Your task to perform on an android device: Open sound settings Image 0: 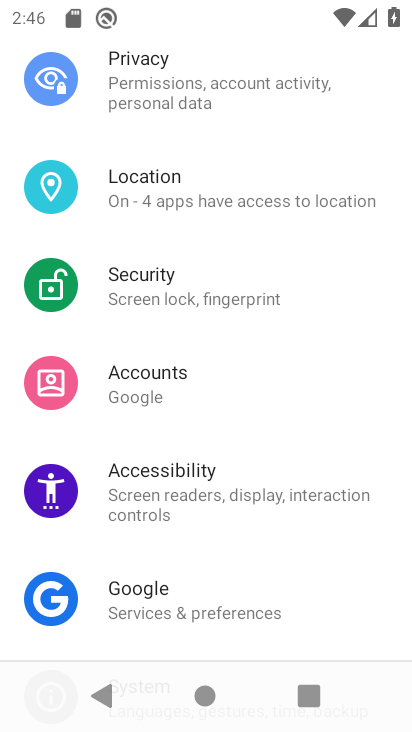
Step 0: drag from (266, 149) to (293, 651)
Your task to perform on an android device: Open sound settings Image 1: 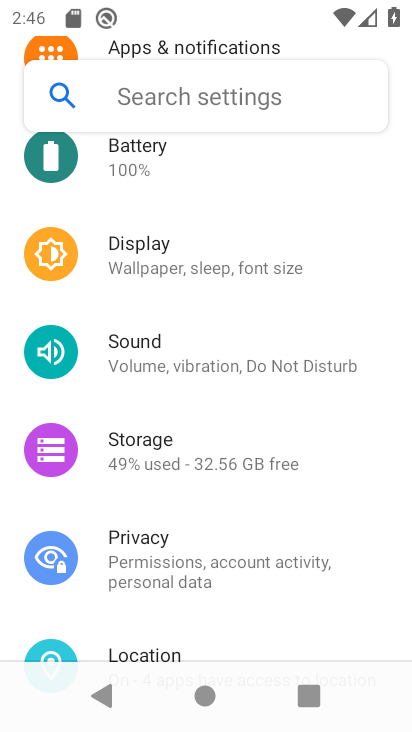
Step 1: click (205, 359)
Your task to perform on an android device: Open sound settings Image 2: 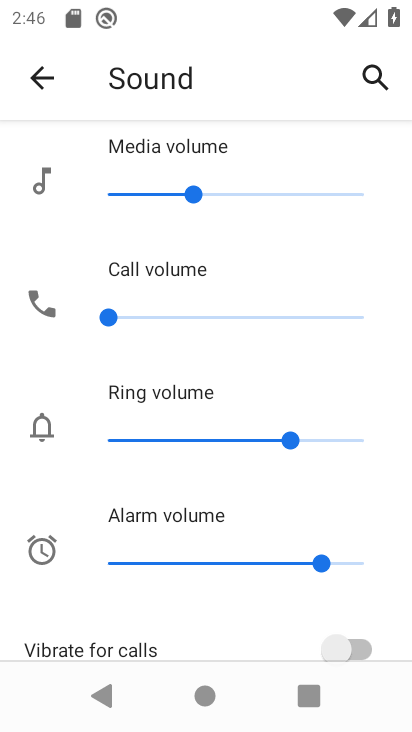
Step 2: task complete